Your task to perform on an android device: What is the recent news? Image 0: 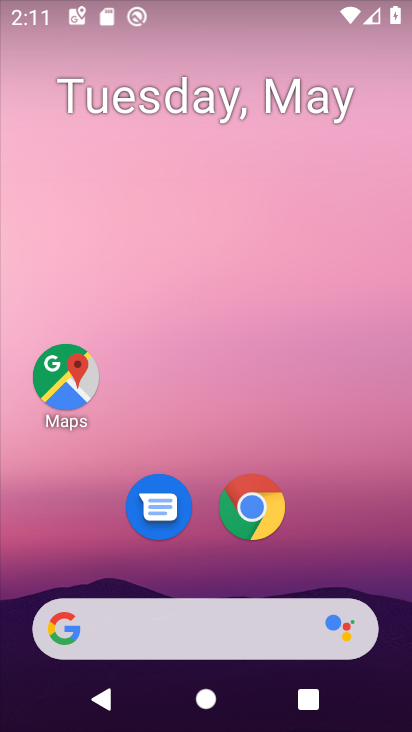
Step 0: drag from (201, 561) to (226, 156)
Your task to perform on an android device: What is the recent news? Image 1: 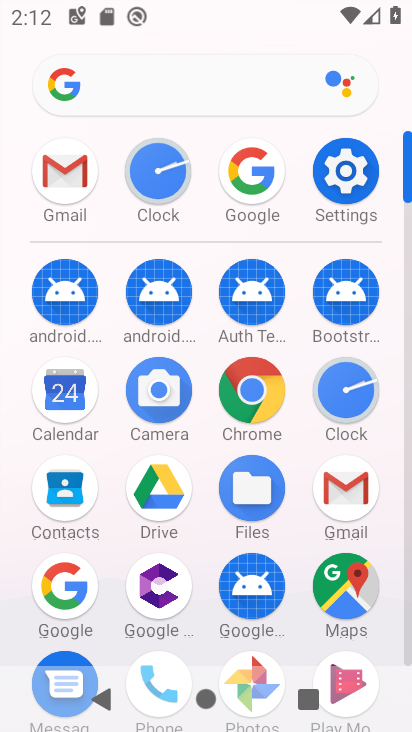
Step 1: click (241, 193)
Your task to perform on an android device: What is the recent news? Image 2: 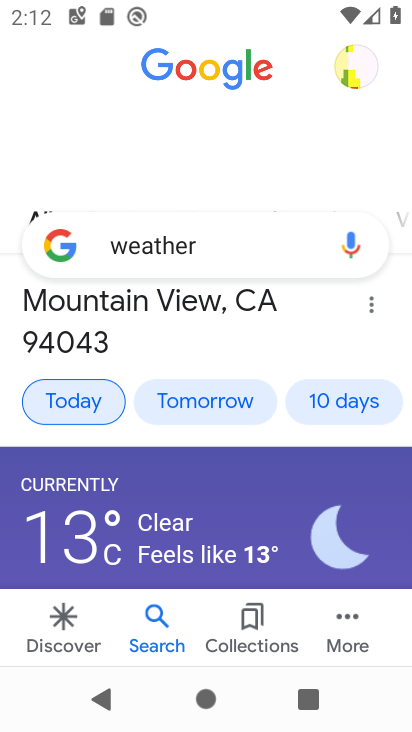
Step 2: click (221, 240)
Your task to perform on an android device: What is the recent news? Image 3: 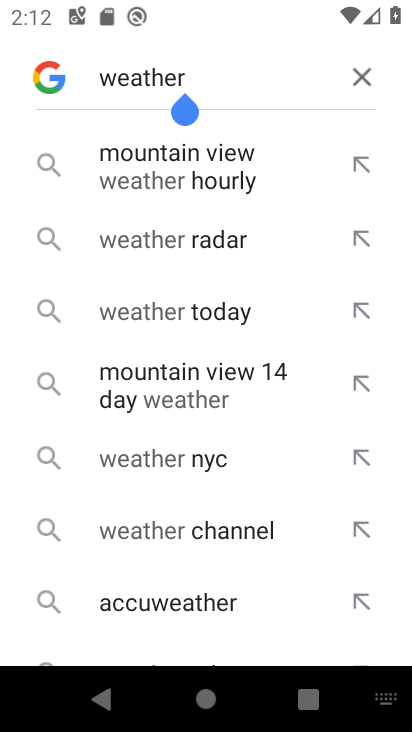
Step 3: click (358, 86)
Your task to perform on an android device: What is the recent news? Image 4: 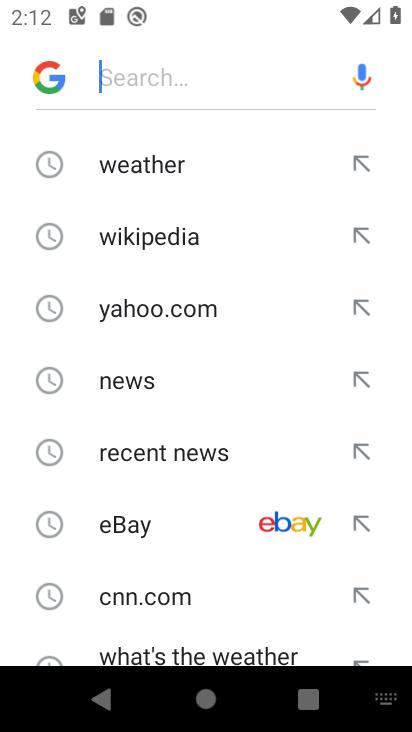
Step 4: click (181, 75)
Your task to perform on an android device: What is the recent news? Image 5: 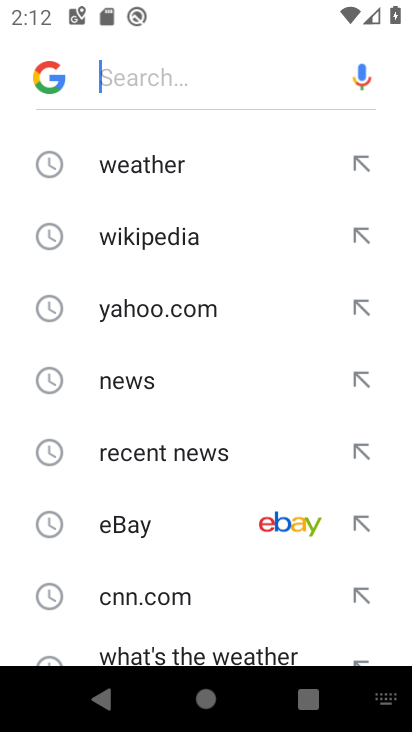
Step 5: click (154, 379)
Your task to perform on an android device: What is the recent news? Image 6: 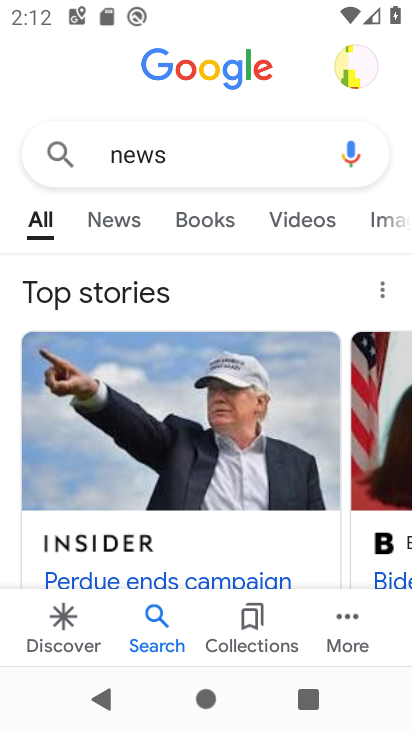
Step 6: click (112, 209)
Your task to perform on an android device: What is the recent news? Image 7: 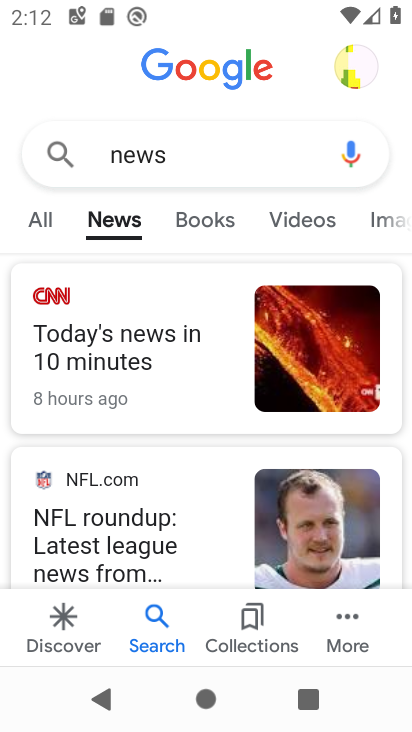
Step 7: task complete